Your task to perform on an android device: create a new album in the google photos Image 0: 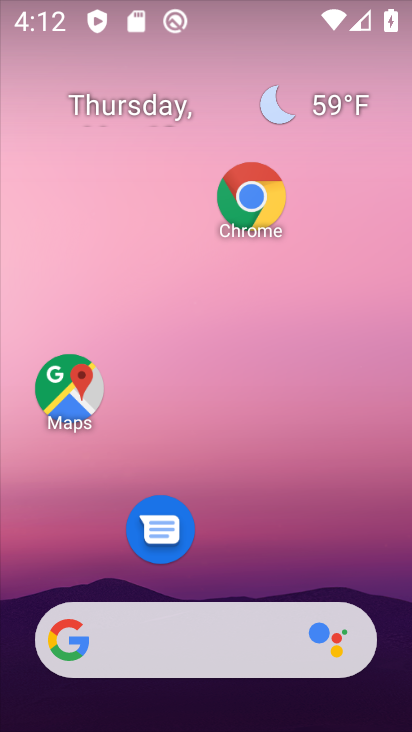
Step 0: click (248, 186)
Your task to perform on an android device: create a new album in the google photos Image 1: 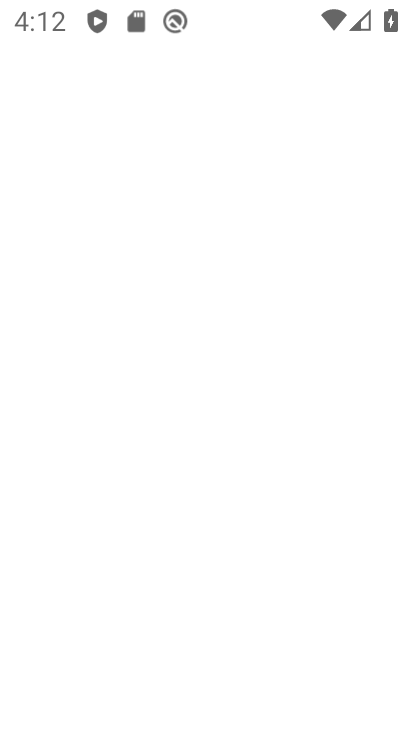
Step 1: press home button
Your task to perform on an android device: create a new album in the google photos Image 2: 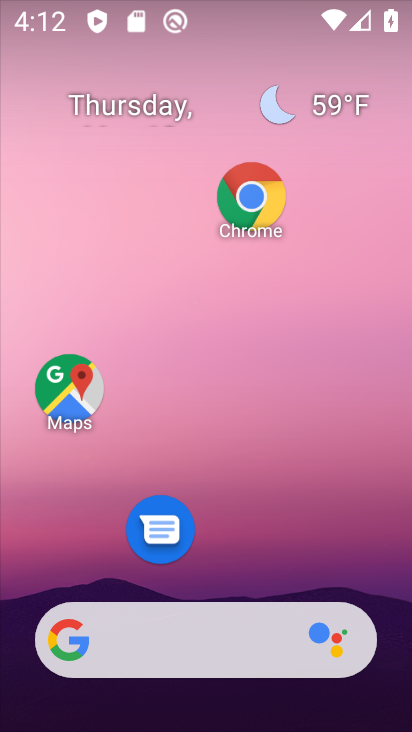
Step 2: drag from (222, 578) to (219, 122)
Your task to perform on an android device: create a new album in the google photos Image 3: 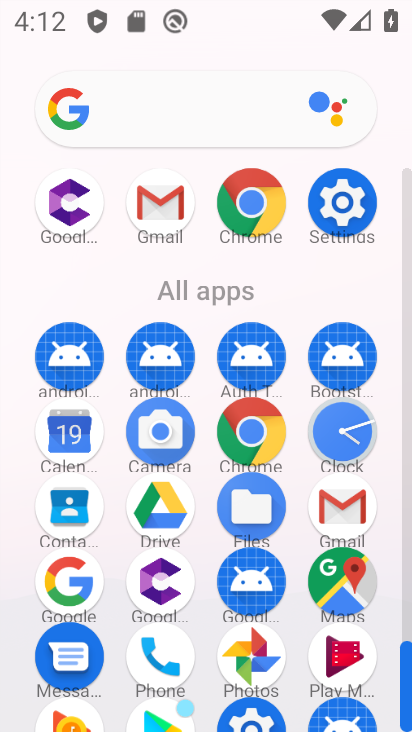
Step 3: click (248, 650)
Your task to perform on an android device: create a new album in the google photos Image 4: 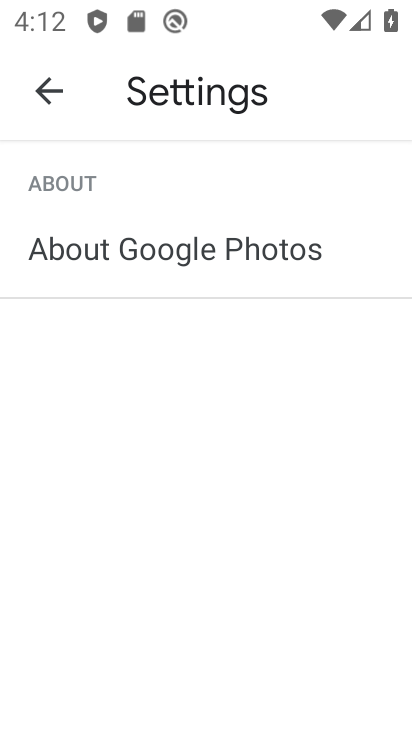
Step 4: press back button
Your task to perform on an android device: create a new album in the google photos Image 5: 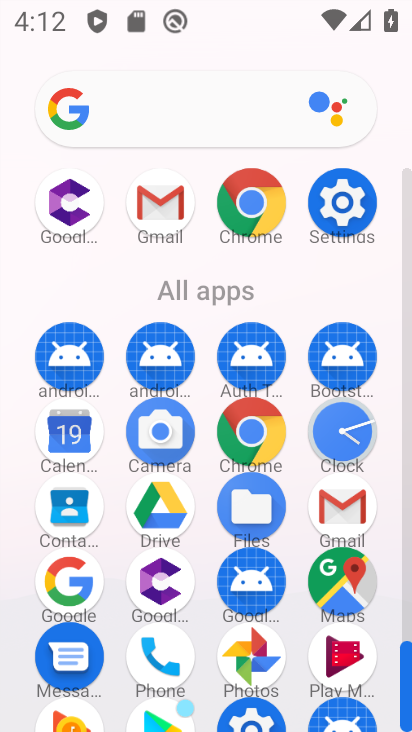
Step 5: click (252, 655)
Your task to perform on an android device: create a new album in the google photos Image 6: 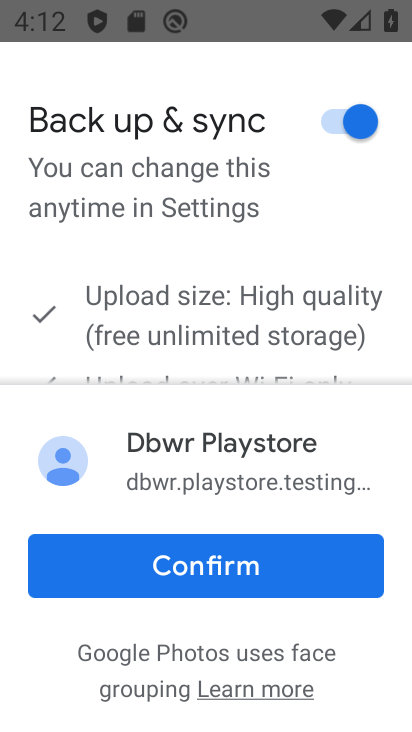
Step 6: click (206, 564)
Your task to perform on an android device: create a new album in the google photos Image 7: 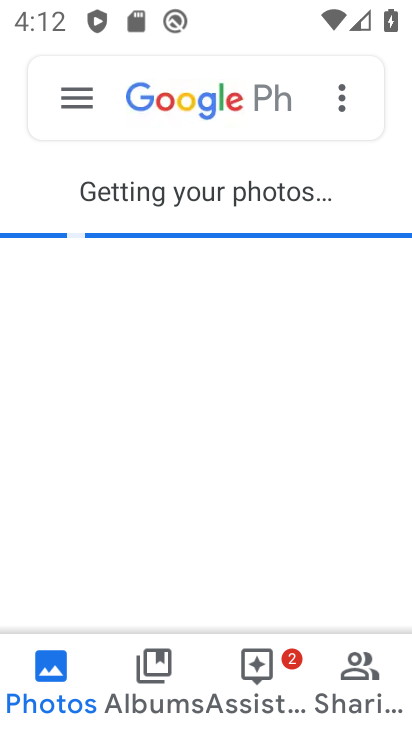
Step 7: click (163, 669)
Your task to perform on an android device: create a new album in the google photos Image 8: 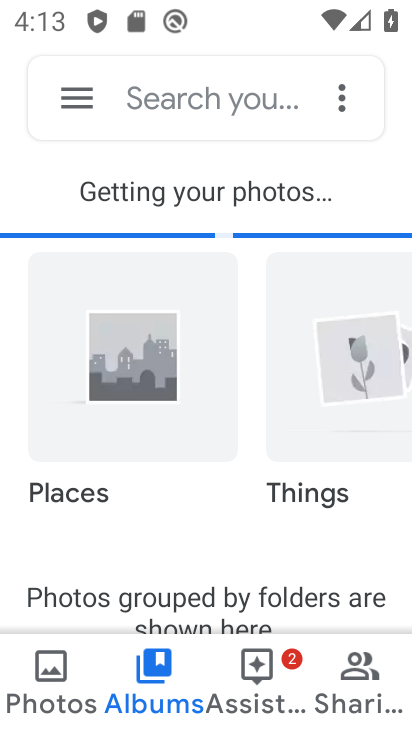
Step 8: click (348, 93)
Your task to perform on an android device: create a new album in the google photos Image 9: 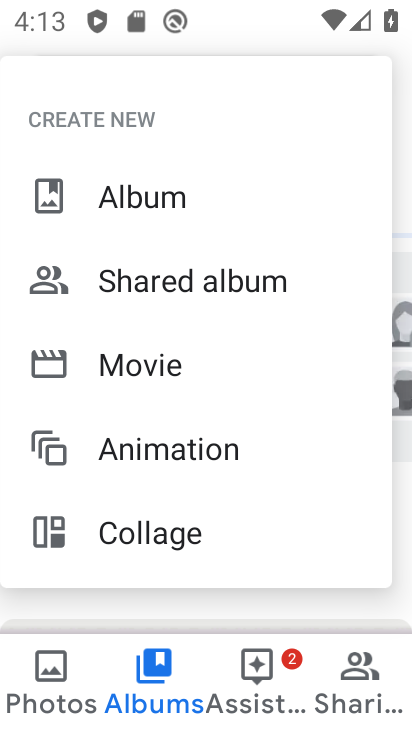
Step 9: click (157, 196)
Your task to perform on an android device: create a new album in the google photos Image 10: 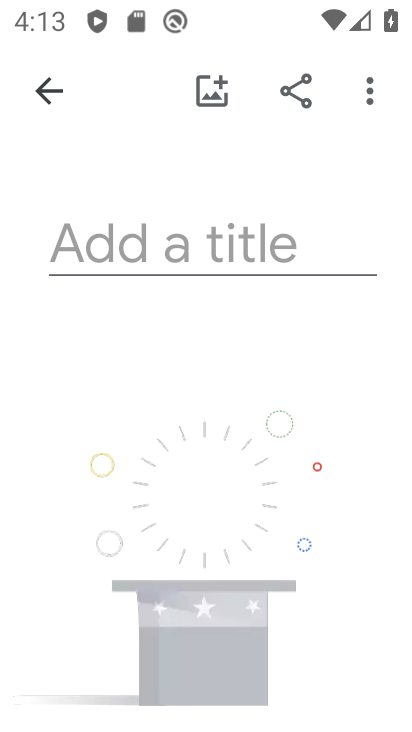
Step 10: drag from (206, 602) to (217, 122)
Your task to perform on an android device: create a new album in the google photos Image 11: 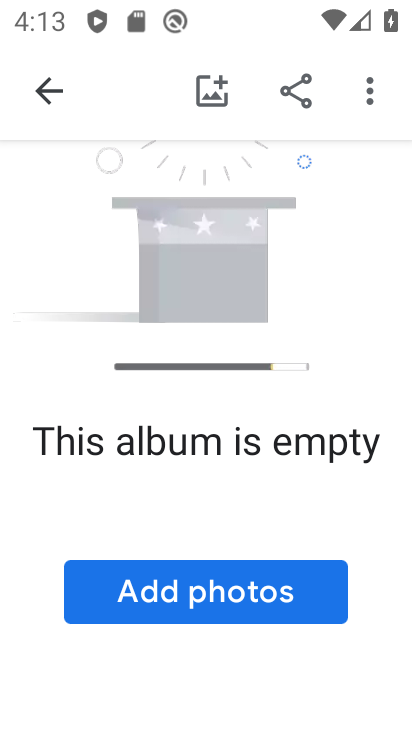
Step 11: click (205, 579)
Your task to perform on an android device: create a new album in the google photos Image 12: 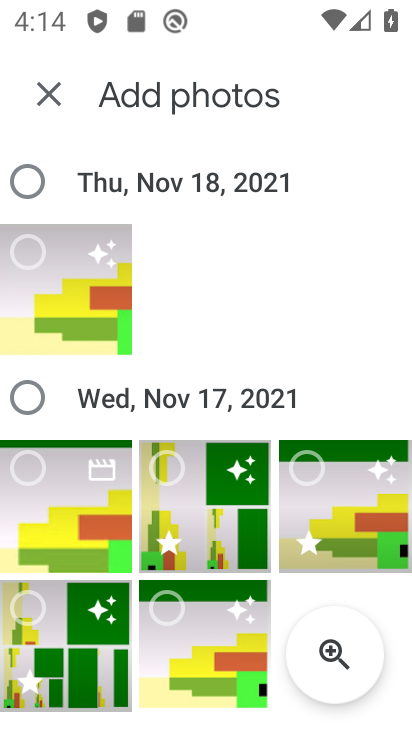
Step 12: click (21, 393)
Your task to perform on an android device: create a new album in the google photos Image 13: 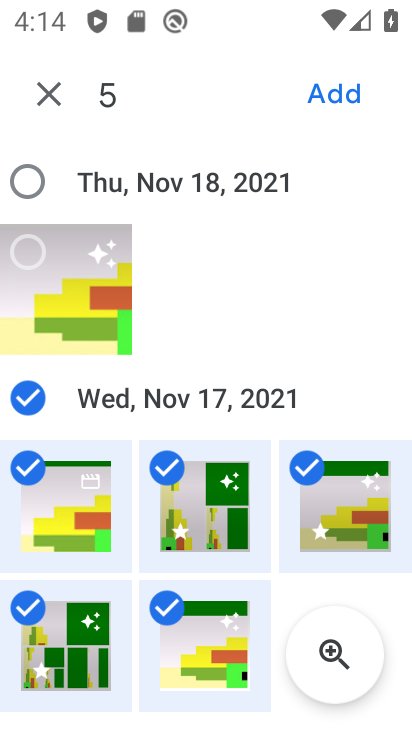
Step 13: click (351, 96)
Your task to perform on an android device: create a new album in the google photos Image 14: 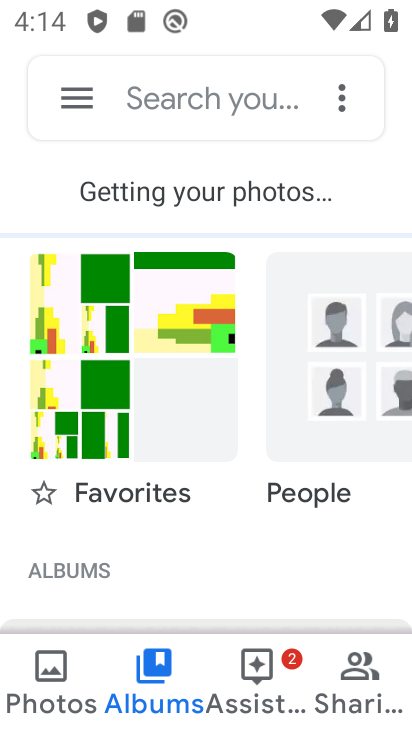
Step 14: click (347, 88)
Your task to perform on an android device: create a new album in the google photos Image 15: 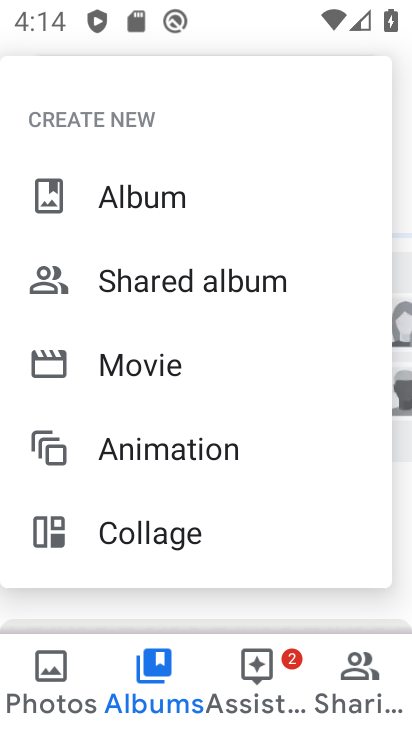
Step 15: click (203, 203)
Your task to perform on an android device: create a new album in the google photos Image 16: 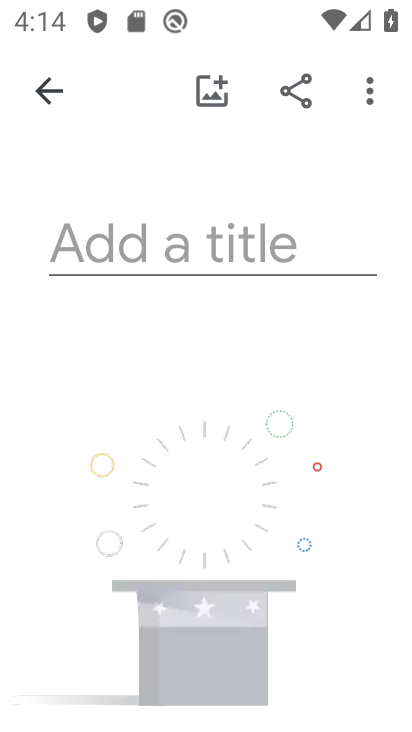
Step 16: drag from (195, 617) to (216, 199)
Your task to perform on an android device: create a new album in the google photos Image 17: 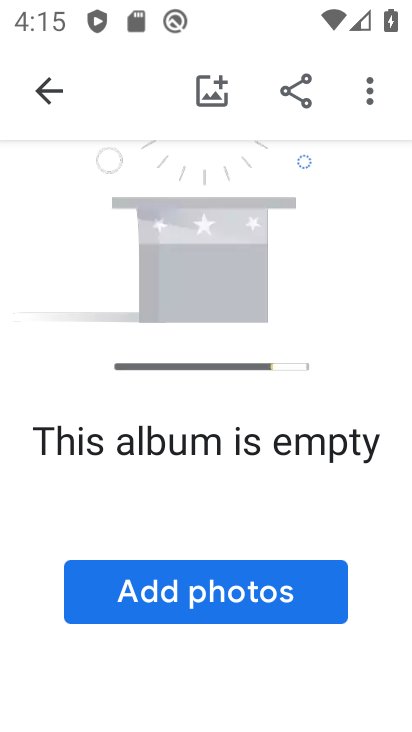
Step 17: click (167, 582)
Your task to perform on an android device: create a new album in the google photos Image 18: 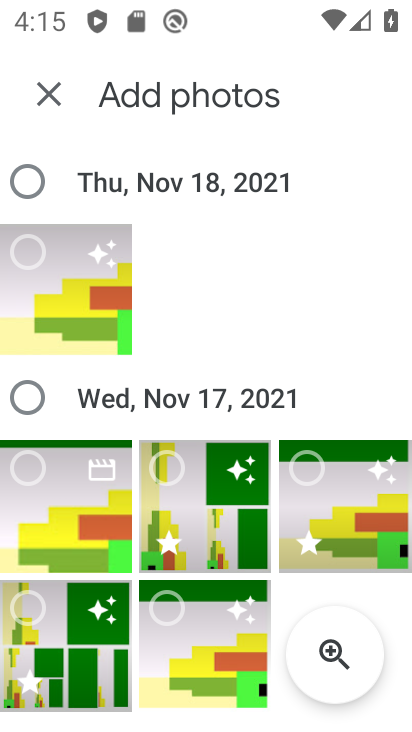
Step 18: click (29, 393)
Your task to perform on an android device: create a new album in the google photos Image 19: 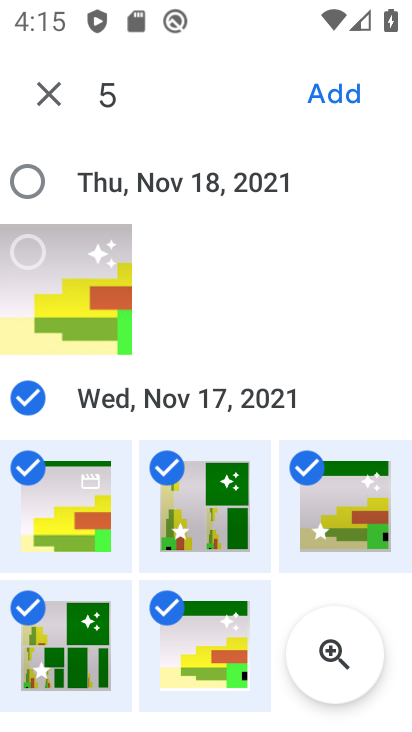
Step 19: click (360, 93)
Your task to perform on an android device: create a new album in the google photos Image 20: 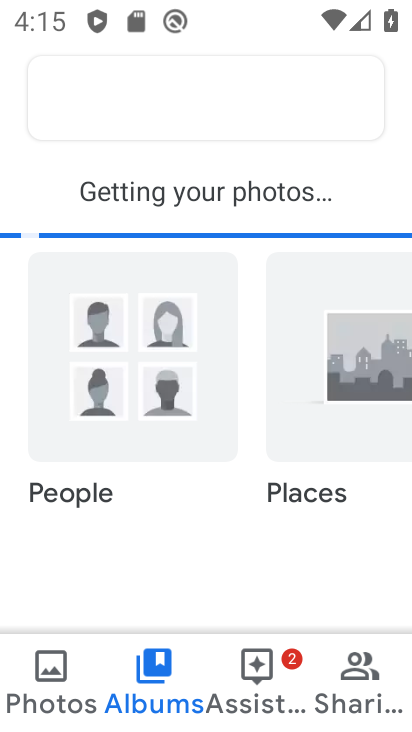
Step 20: task complete